Your task to perform on an android device: Go to network settings Image 0: 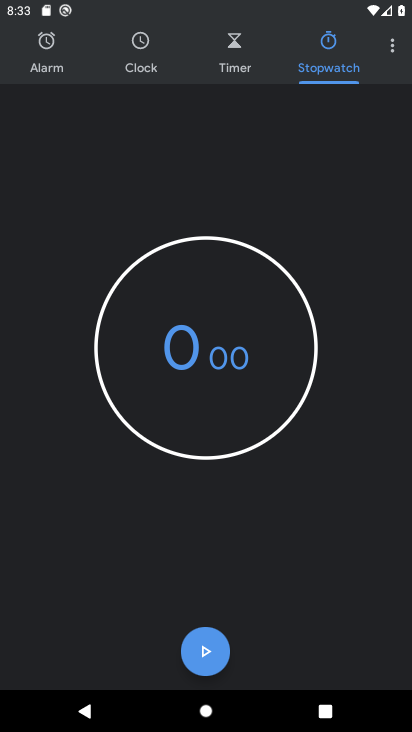
Step 0: press home button
Your task to perform on an android device: Go to network settings Image 1: 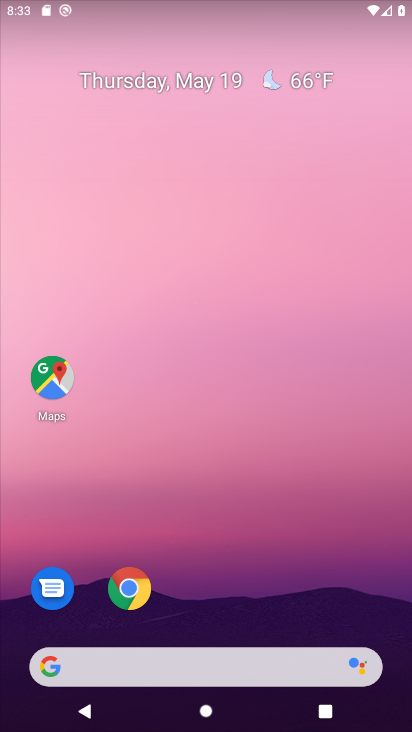
Step 1: drag from (382, 623) to (358, 234)
Your task to perform on an android device: Go to network settings Image 2: 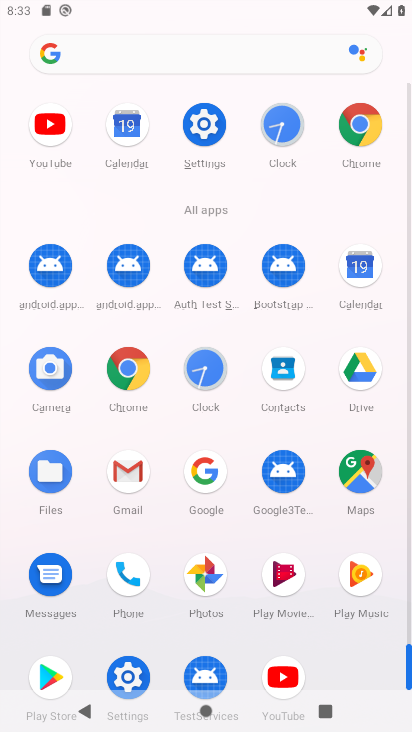
Step 2: click (212, 129)
Your task to perform on an android device: Go to network settings Image 3: 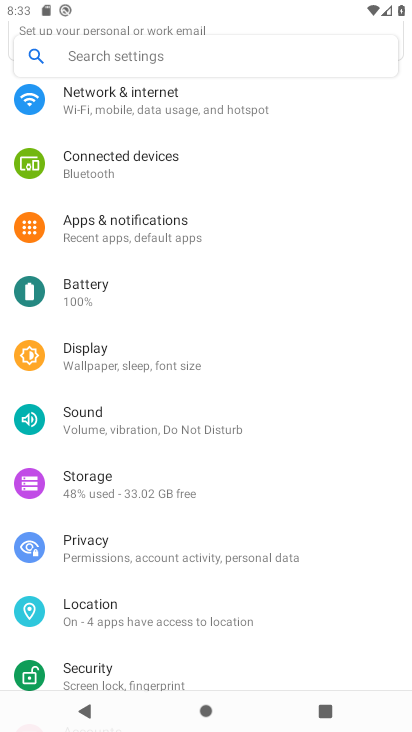
Step 3: drag from (309, 354) to (312, 395)
Your task to perform on an android device: Go to network settings Image 4: 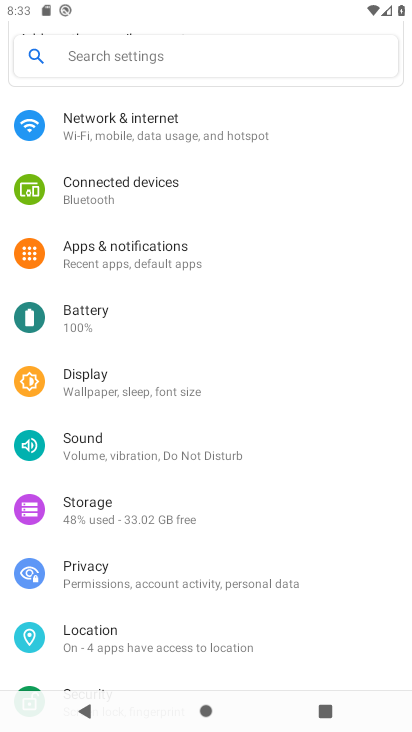
Step 4: drag from (339, 499) to (338, 373)
Your task to perform on an android device: Go to network settings Image 5: 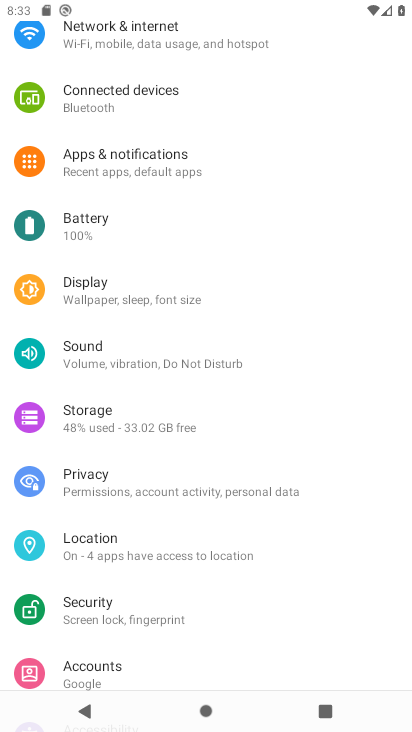
Step 5: drag from (342, 550) to (345, 451)
Your task to perform on an android device: Go to network settings Image 6: 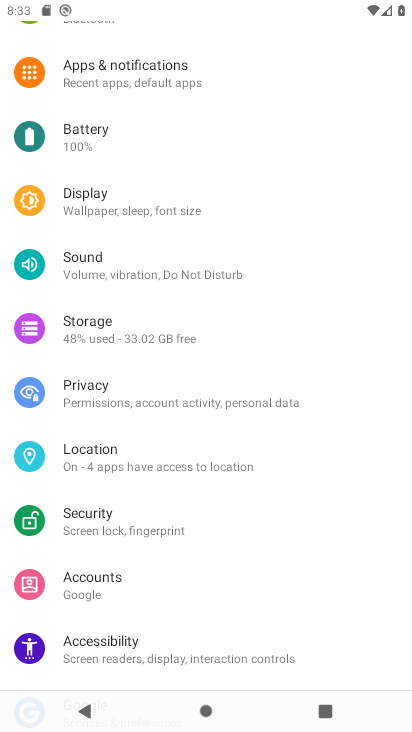
Step 6: drag from (337, 517) to (337, 482)
Your task to perform on an android device: Go to network settings Image 7: 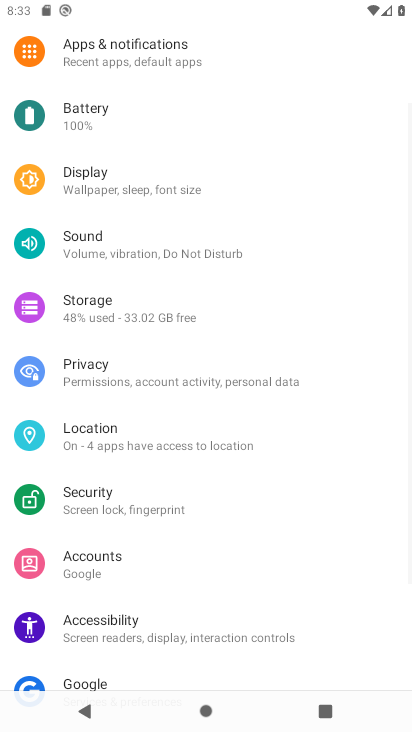
Step 7: drag from (321, 317) to (326, 434)
Your task to perform on an android device: Go to network settings Image 8: 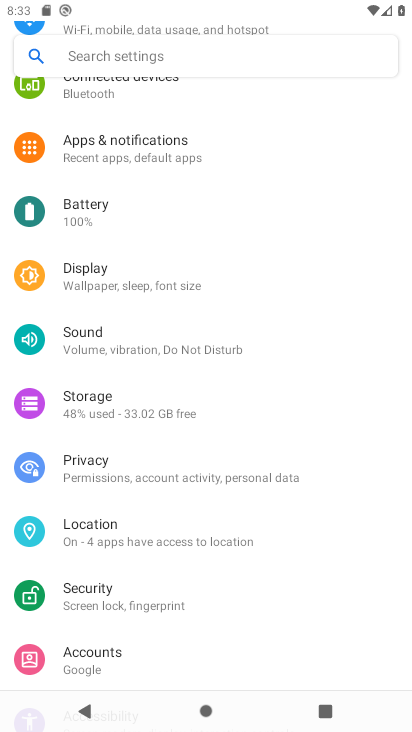
Step 8: drag from (303, 266) to (305, 386)
Your task to perform on an android device: Go to network settings Image 9: 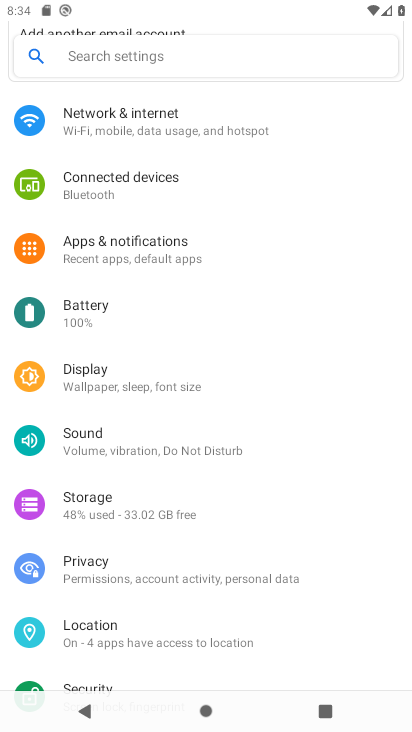
Step 9: click (243, 150)
Your task to perform on an android device: Go to network settings Image 10: 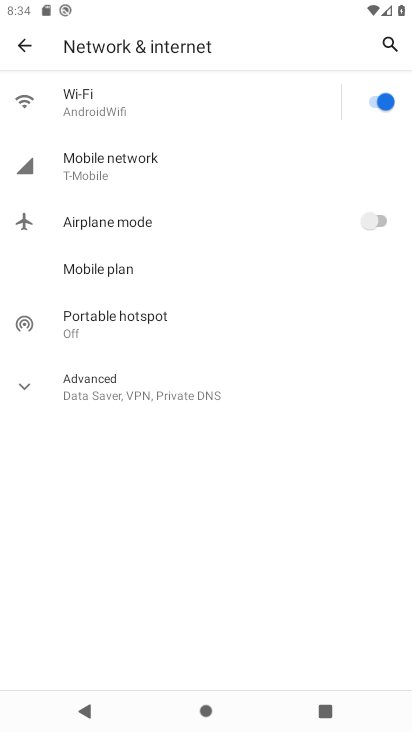
Step 10: task complete